Your task to perform on an android device: What's on my calendar tomorrow? Image 0: 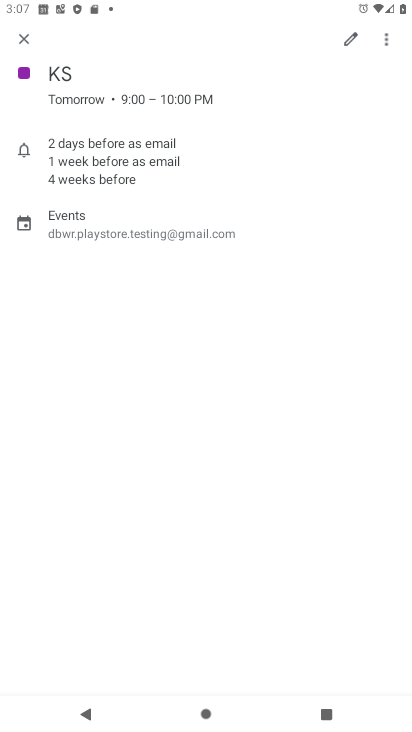
Step 0: click (23, 40)
Your task to perform on an android device: What's on my calendar tomorrow? Image 1: 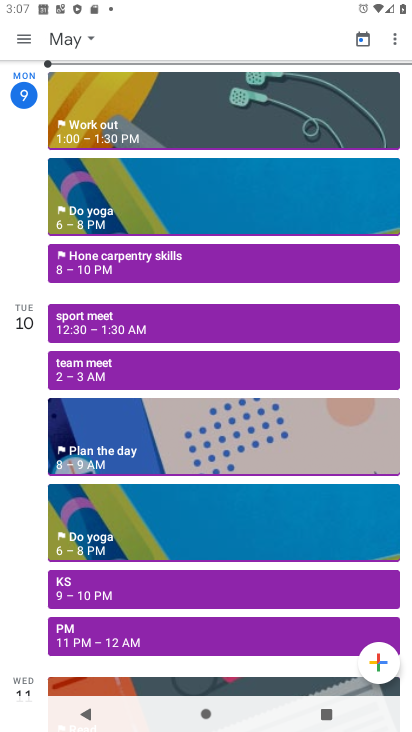
Step 1: task complete